Your task to perform on an android device: toggle location history Image 0: 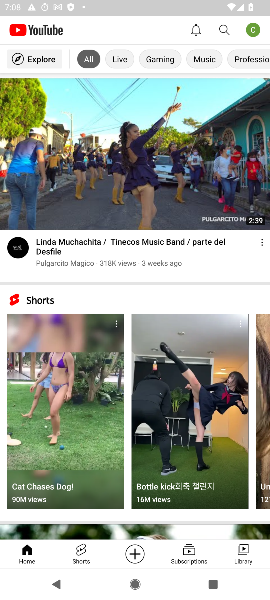
Step 0: click (154, 44)
Your task to perform on an android device: toggle location history Image 1: 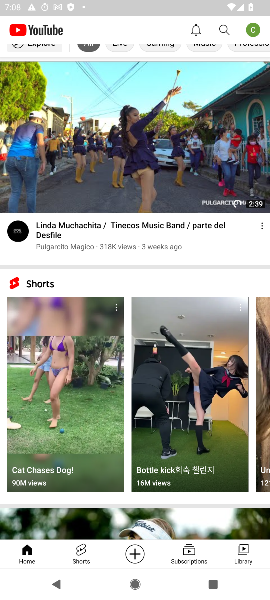
Step 1: drag from (118, 493) to (123, 160)
Your task to perform on an android device: toggle location history Image 2: 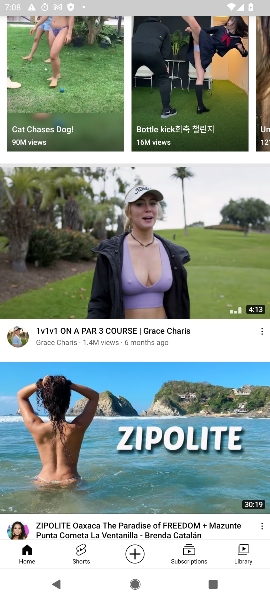
Step 2: drag from (149, 477) to (183, 202)
Your task to perform on an android device: toggle location history Image 3: 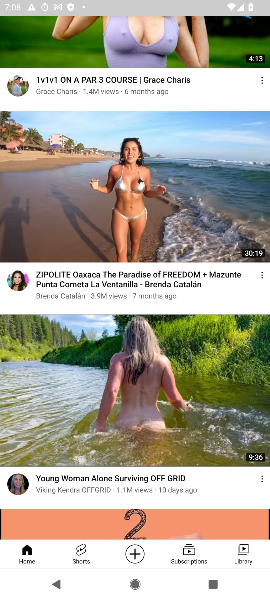
Step 3: drag from (130, 469) to (133, 387)
Your task to perform on an android device: toggle location history Image 4: 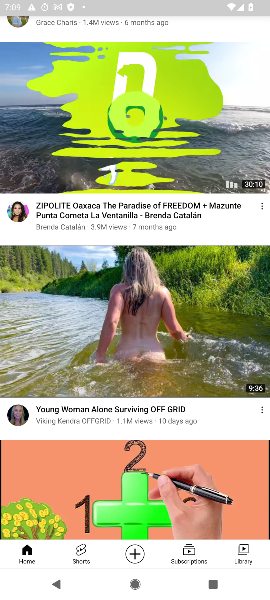
Step 4: drag from (168, 477) to (187, 140)
Your task to perform on an android device: toggle location history Image 5: 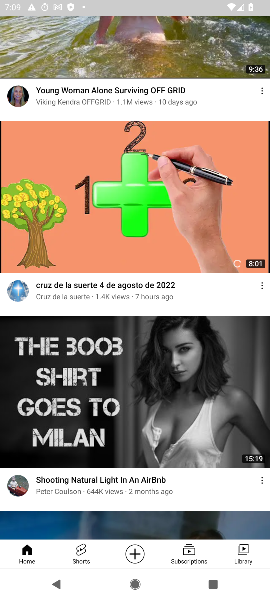
Step 5: drag from (142, 469) to (165, 94)
Your task to perform on an android device: toggle location history Image 6: 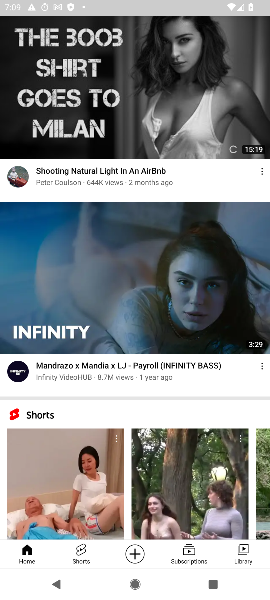
Step 6: drag from (172, 426) to (198, 163)
Your task to perform on an android device: toggle location history Image 7: 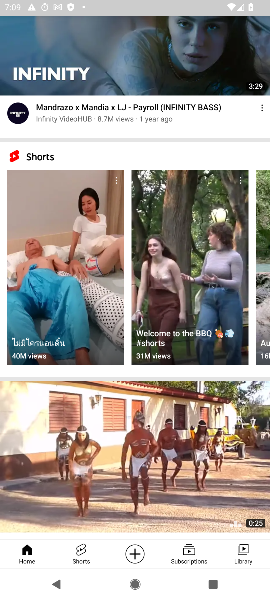
Step 7: drag from (140, 134) to (200, 544)
Your task to perform on an android device: toggle location history Image 8: 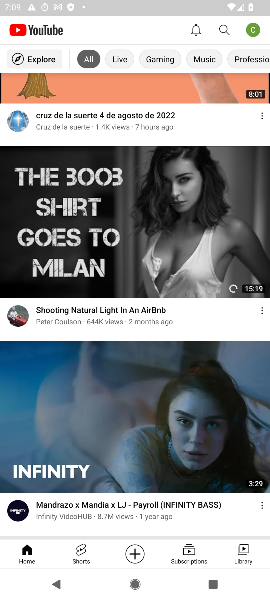
Step 8: drag from (131, 133) to (216, 498)
Your task to perform on an android device: toggle location history Image 9: 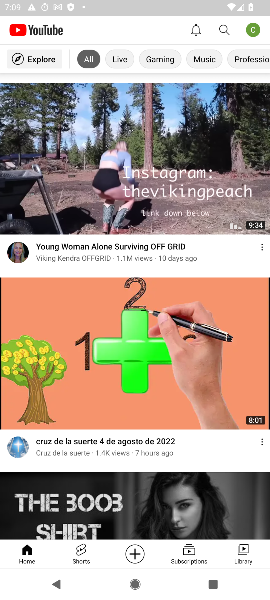
Step 9: drag from (134, 168) to (191, 452)
Your task to perform on an android device: toggle location history Image 10: 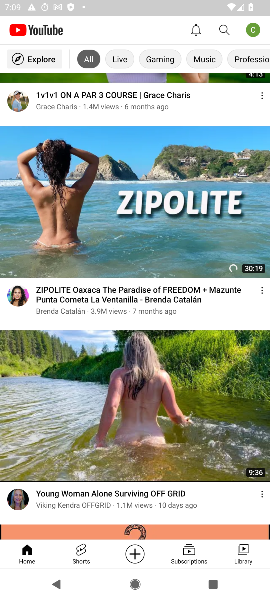
Step 10: drag from (114, 186) to (201, 490)
Your task to perform on an android device: toggle location history Image 11: 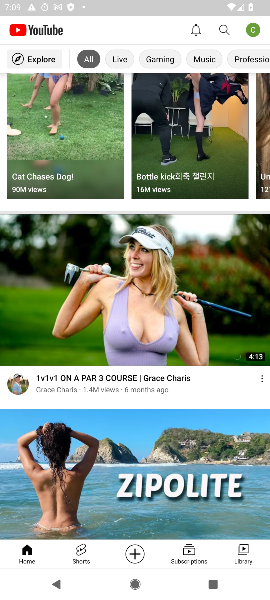
Step 11: drag from (114, 256) to (180, 459)
Your task to perform on an android device: toggle location history Image 12: 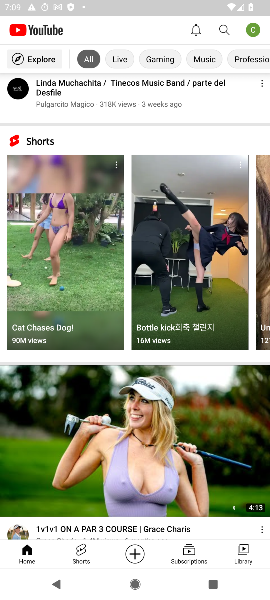
Step 12: drag from (164, 439) to (171, 176)
Your task to perform on an android device: toggle location history Image 13: 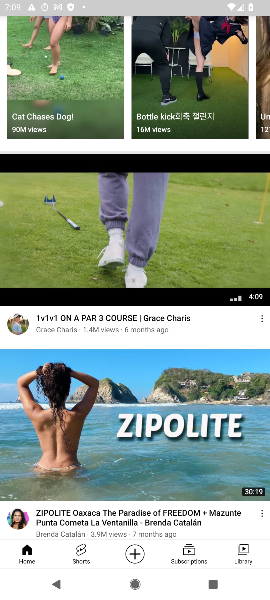
Step 13: drag from (141, 405) to (157, 131)
Your task to perform on an android device: toggle location history Image 14: 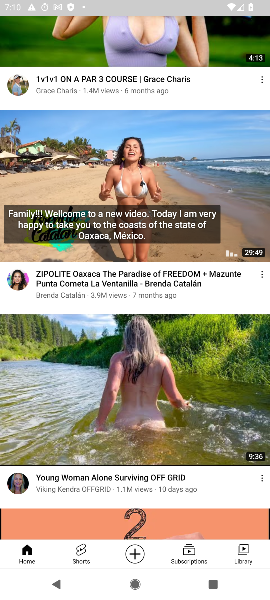
Step 14: press home button
Your task to perform on an android device: toggle location history Image 15: 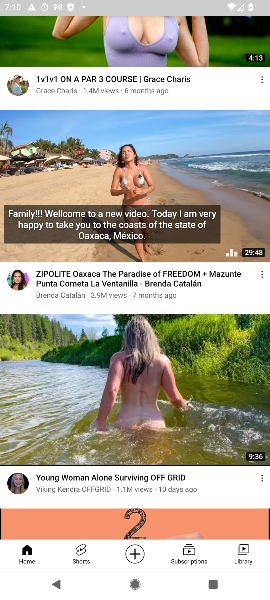
Step 15: drag from (183, 428) to (202, 35)
Your task to perform on an android device: toggle location history Image 16: 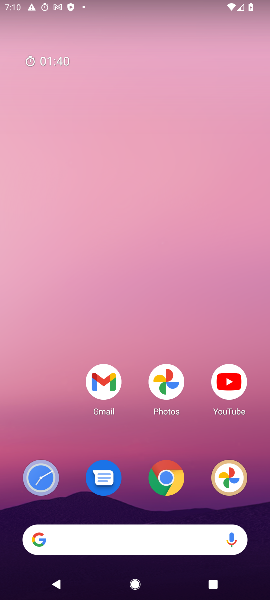
Step 16: drag from (114, 480) to (152, 186)
Your task to perform on an android device: toggle location history Image 17: 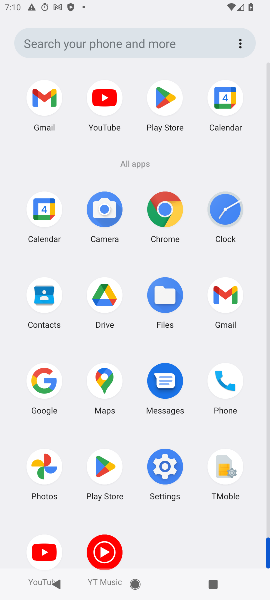
Step 17: click (155, 471)
Your task to perform on an android device: toggle location history Image 18: 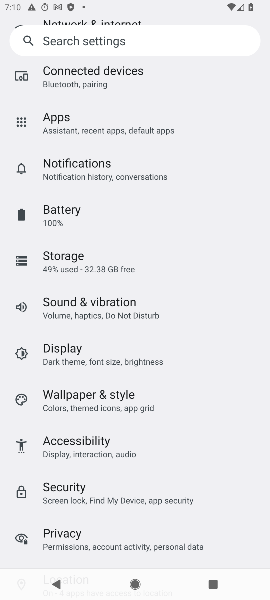
Step 18: drag from (104, 459) to (160, 138)
Your task to perform on an android device: toggle location history Image 19: 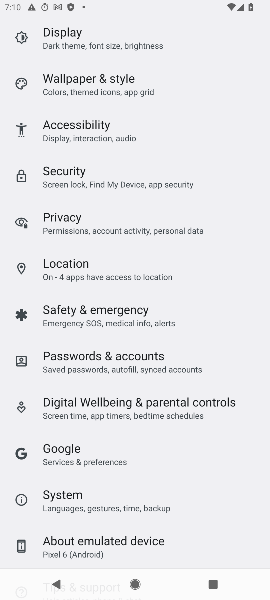
Step 19: click (74, 274)
Your task to perform on an android device: toggle location history Image 20: 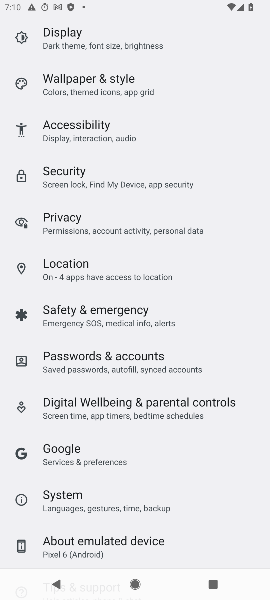
Step 20: click (74, 273)
Your task to perform on an android device: toggle location history Image 21: 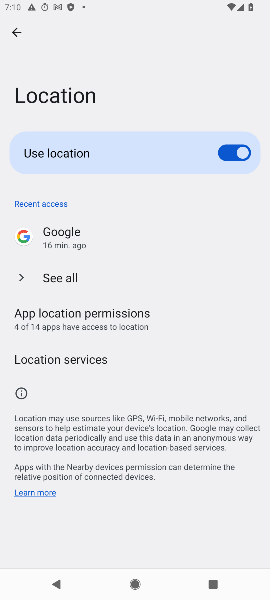
Step 21: click (28, 358)
Your task to perform on an android device: toggle location history Image 22: 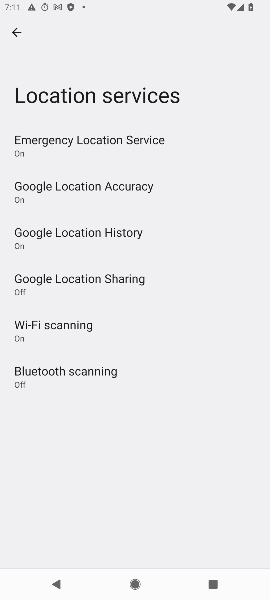
Step 22: click (134, 243)
Your task to perform on an android device: toggle location history Image 23: 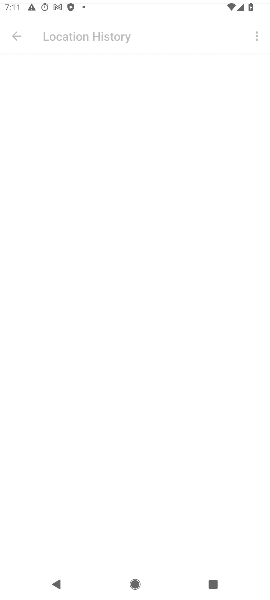
Step 23: drag from (173, 478) to (168, 29)
Your task to perform on an android device: toggle location history Image 24: 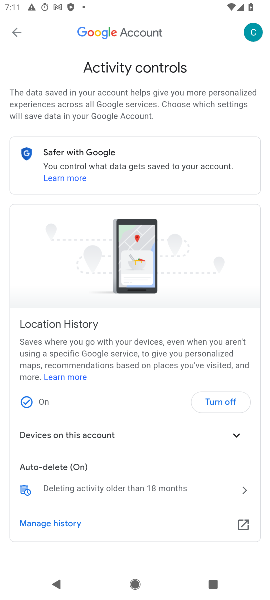
Step 24: click (219, 406)
Your task to perform on an android device: toggle location history Image 25: 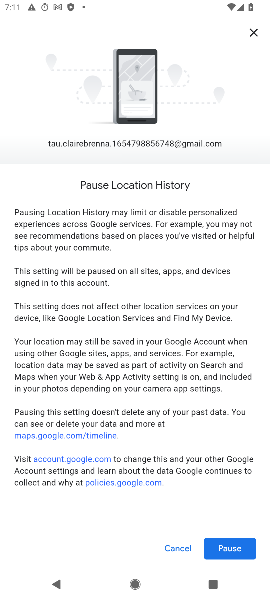
Step 25: drag from (164, 455) to (149, 255)
Your task to perform on an android device: toggle location history Image 26: 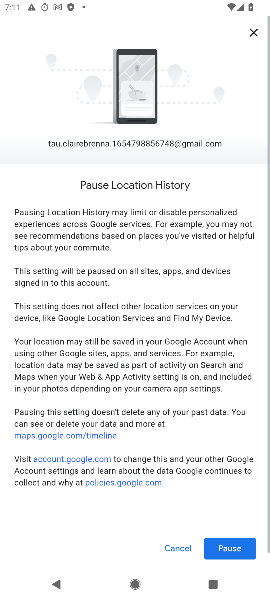
Step 26: click (233, 544)
Your task to perform on an android device: toggle location history Image 27: 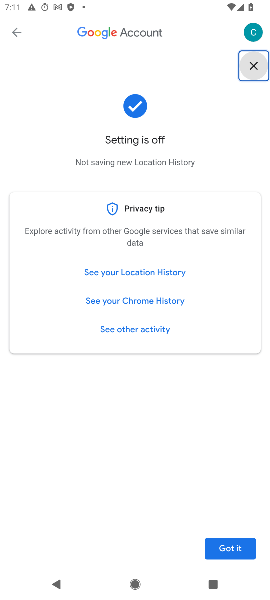
Step 27: click (226, 539)
Your task to perform on an android device: toggle location history Image 28: 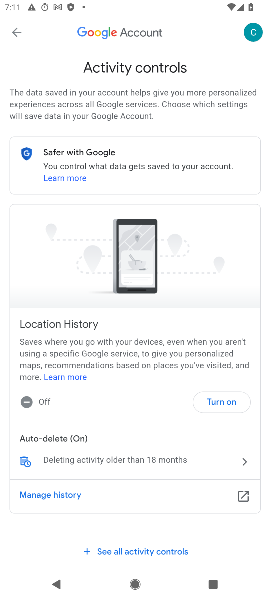
Step 28: task complete